Your task to perform on an android device: open the mobile data screen to see how much data has been used Image 0: 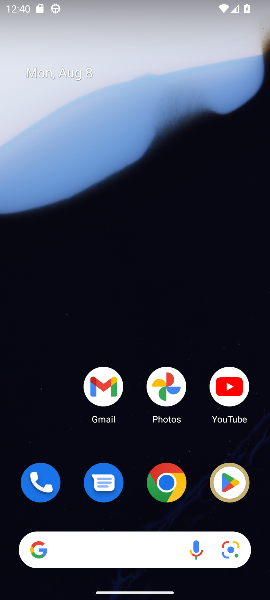
Step 0: drag from (150, 546) to (117, 12)
Your task to perform on an android device: open the mobile data screen to see how much data has been used Image 1: 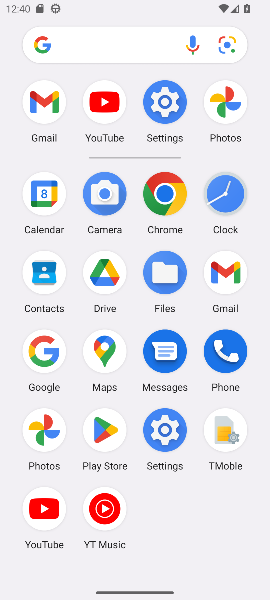
Step 1: click (158, 83)
Your task to perform on an android device: open the mobile data screen to see how much data has been used Image 2: 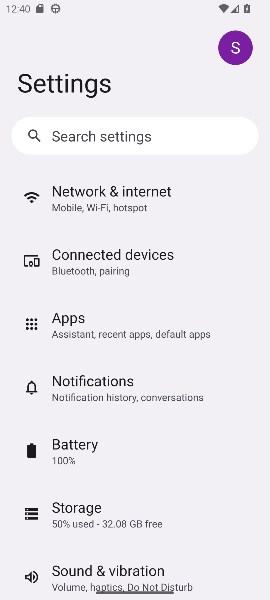
Step 2: click (109, 215)
Your task to perform on an android device: open the mobile data screen to see how much data has been used Image 3: 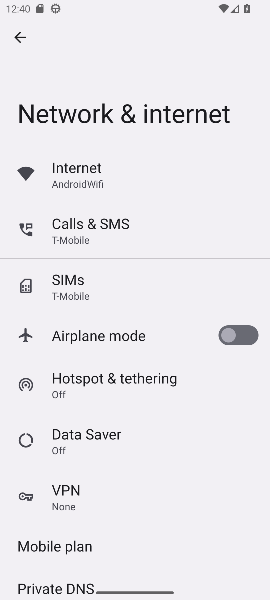
Step 3: click (102, 176)
Your task to perform on an android device: open the mobile data screen to see how much data has been used Image 4: 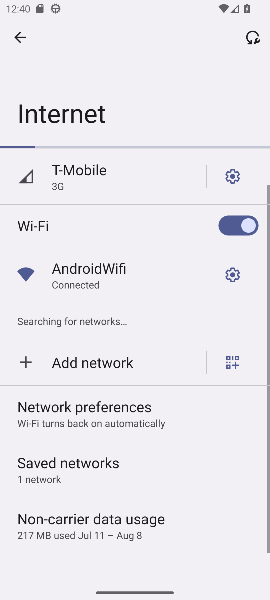
Step 4: task complete